Your task to perform on an android device: What is the recent news? Image 0: 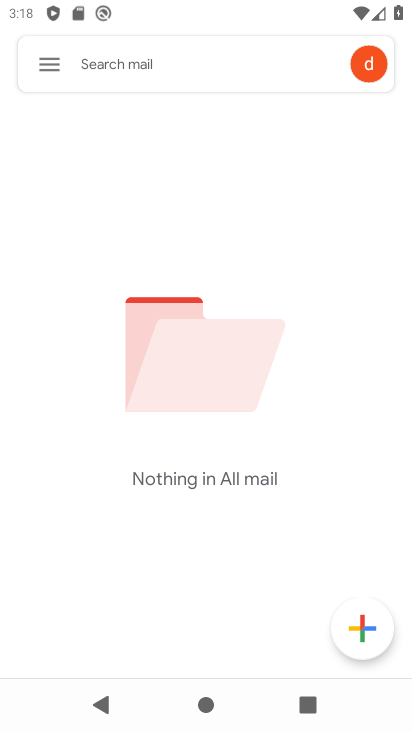
Step 0: press home button
Your task to perform on an android device: What is the recent news? Image 1: 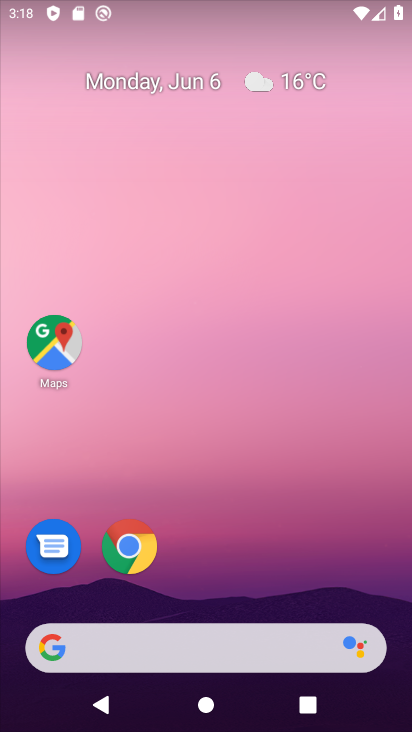
Step 1: drag from (306, 418) to (362, 20)
Your task to perform on an android device: What is the recent news? Image 2: 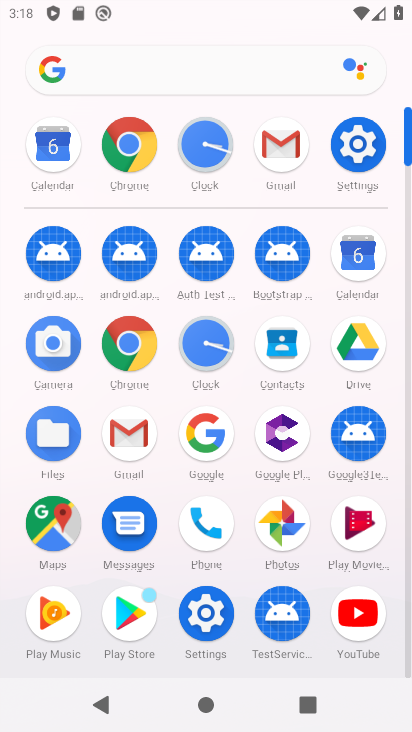
Step 2: click (118, 152)
Your task to perform on an android device: What is the recent news? Image 3: 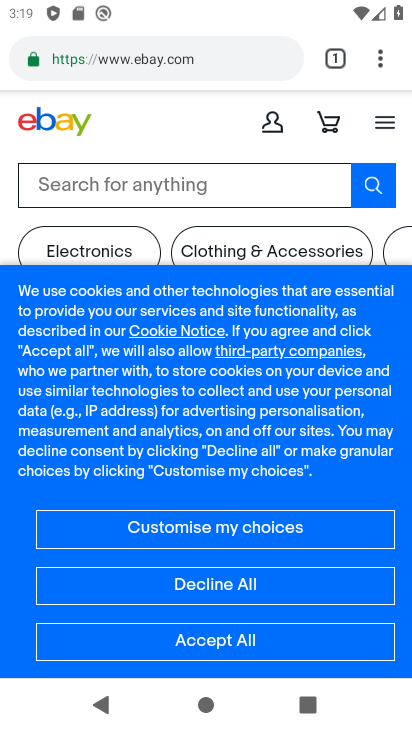
Step 3: task complete